Your task to perform on an android device: turn off improve location accuracy Image 0: 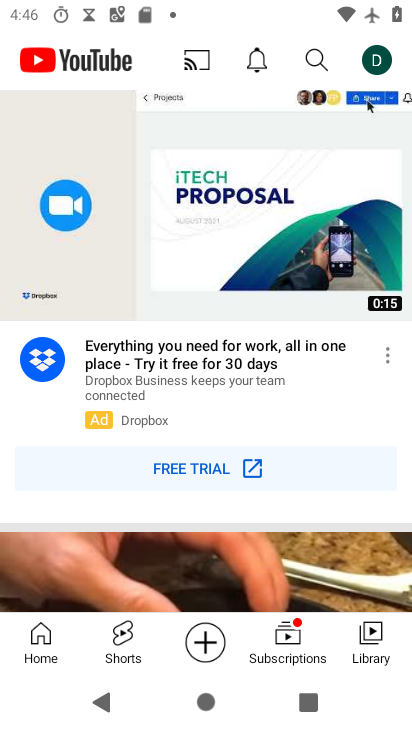
Step 0: press home button
Your task to perform on an android device: turn off improve location accuracy Image 1: 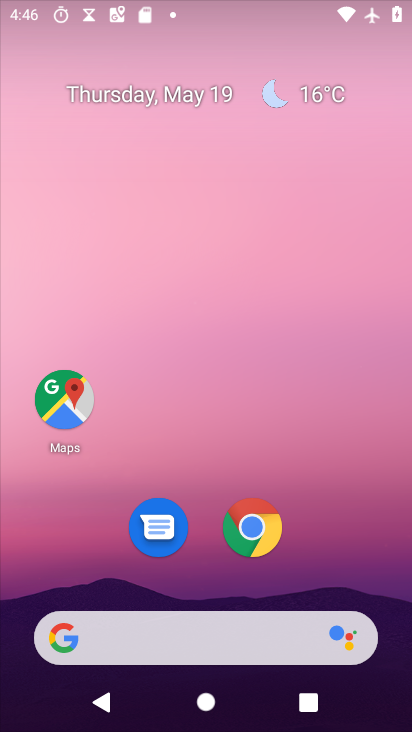
Step 1: drag from (333, 522) to (206, 33)
Your task to perform on an android device: turn off improve location accuracy Image 2: 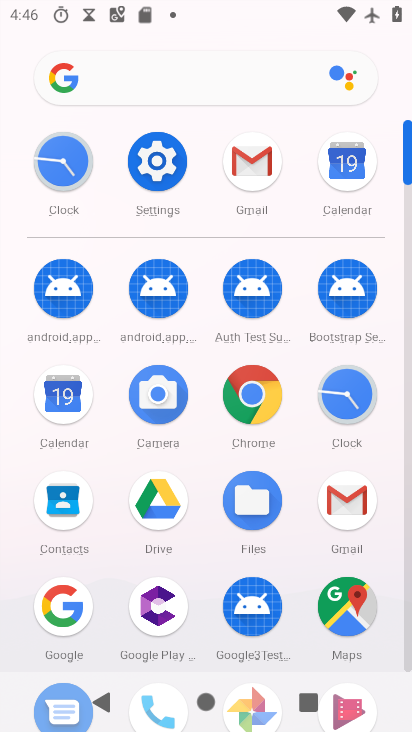
Step 2: click (173, 171)
Your task to perform on an android device: turn off improve location accuracy Image 3: 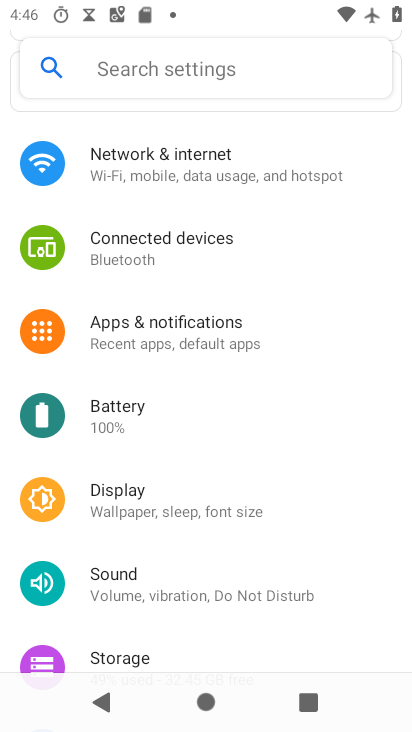
Step 3: drag from (303, 557) to (227, 158)
Your task to perform on an android device: turn off improve location accuracy Image 4: 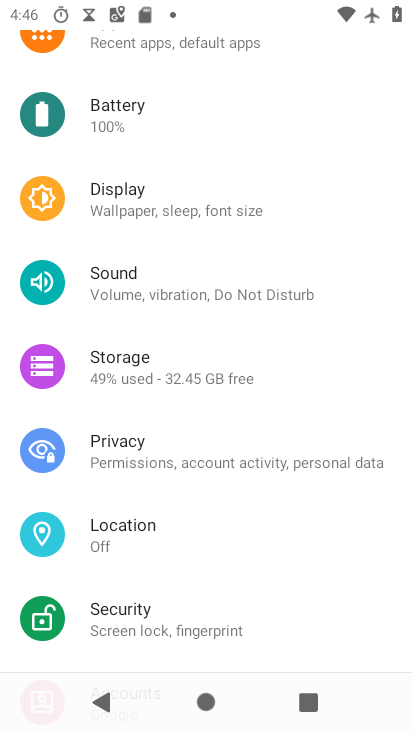
Step 4: click (173, 538)
Your task to perform on an android device: turn off improve location accuracy Image 5: 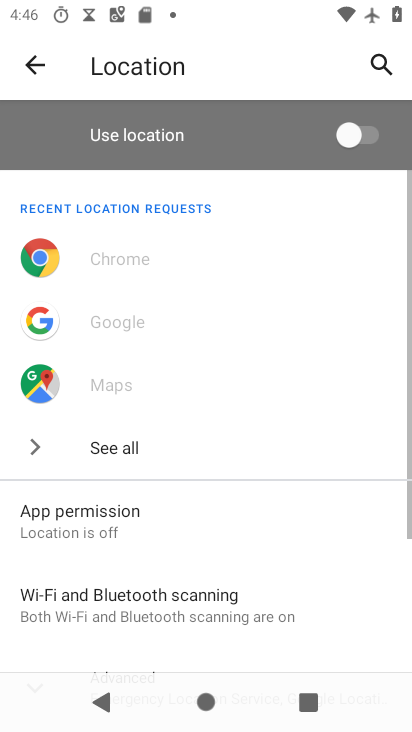
Step 5: drag from (265, 570) to (198, 62)
Your task to perform on an android device: turn off improve location accuracy Image 6: 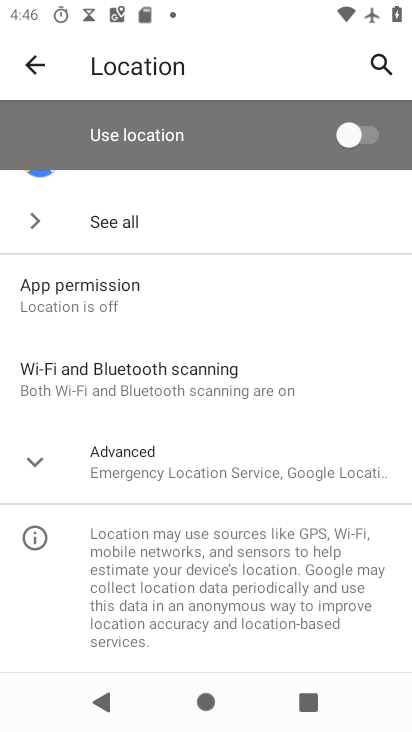
Step 6: click (249, 483)
Your task to perform on an android device: turn off improve location accuracy Image 7: 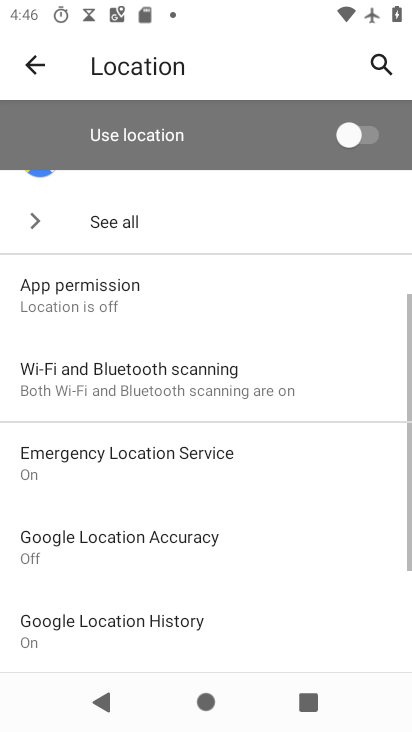
Step 7: drag from (221, 560) to (209, 261)
Your task to perform on an android device: turn off improve location accuracy Image 8: 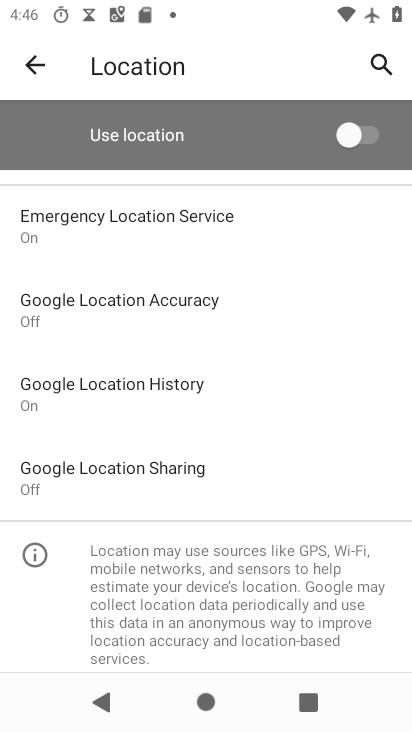
Step 8: click (170, 292)
Your task to perform on an android device: turn off improve location accuracy Image 9: 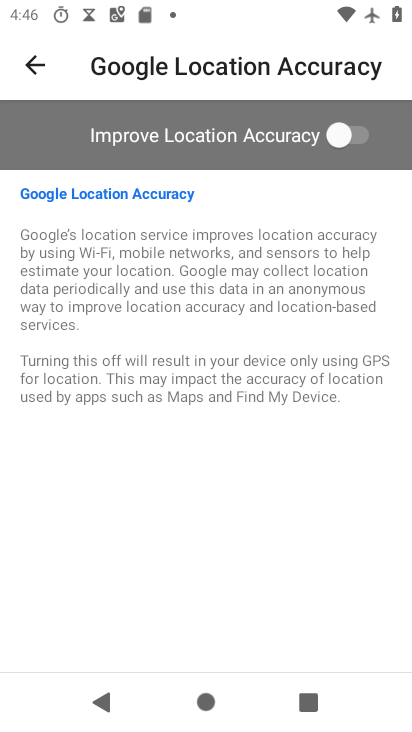
Step 9: task complete